Your task to perform on an android device: What's the weather going to be this weekend? Image 0: 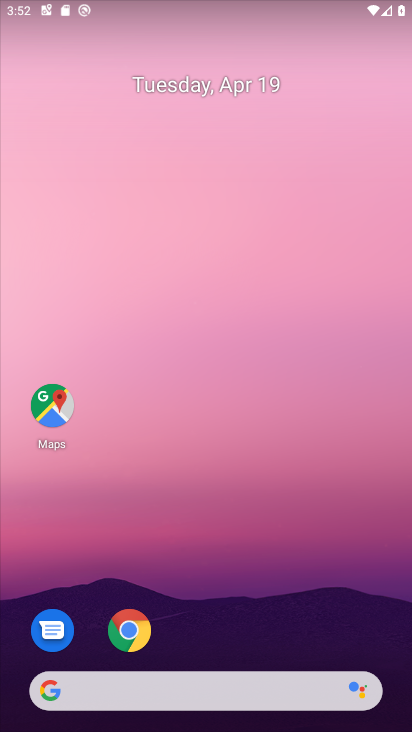
Step 0: click (125, 632)
Your task to perform on an android device: What's the weather going to be this weekend? Image 1: 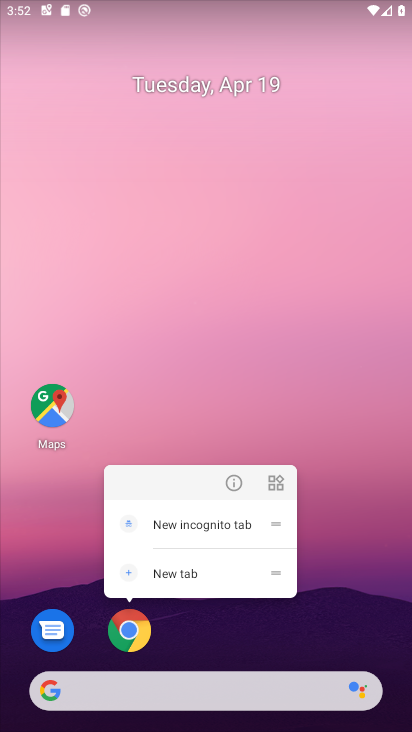
Step 1: click (126, 619)
Your task to perform on an android device: What's the weather going to be this weekend? Image 2: 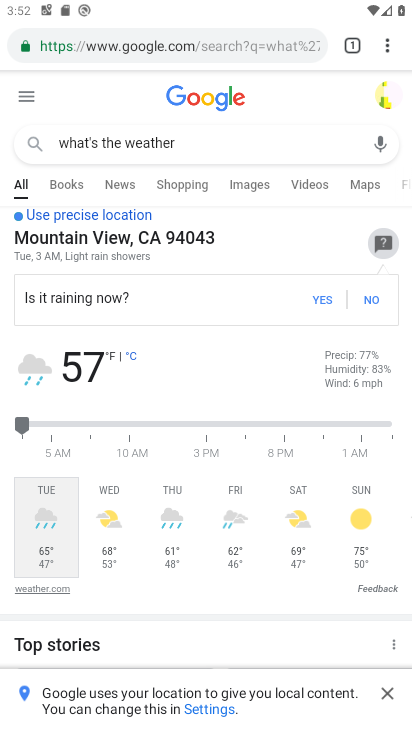
Step 2: click (165, 51)
Your task to perform on an android device: What's the weather going to be this weekend? Image 3: 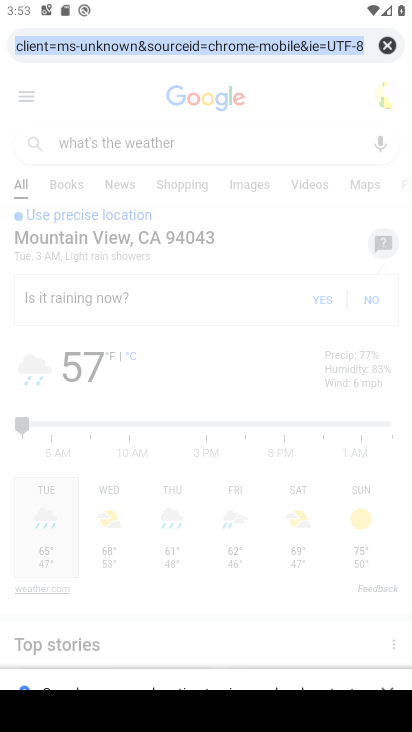
Step 3: type "what's the weather going to be this weekend"
Your task to perform on an android device: What's the weather going to be this weekend? Image 4: 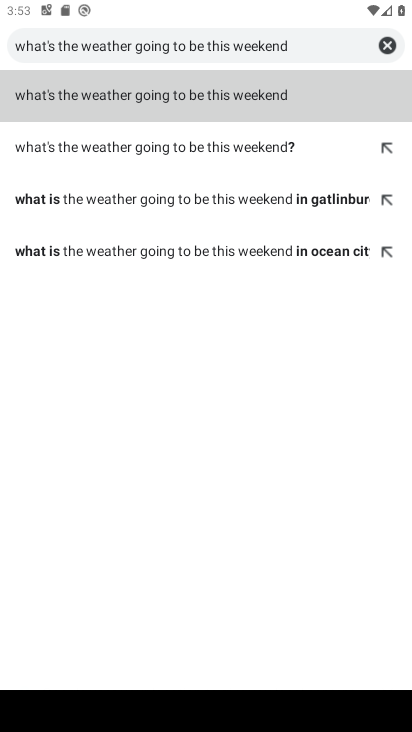
Step 4: click (218, 145)
Your task to perform on an android device: What's the weather going to be this weekend? Image 5: 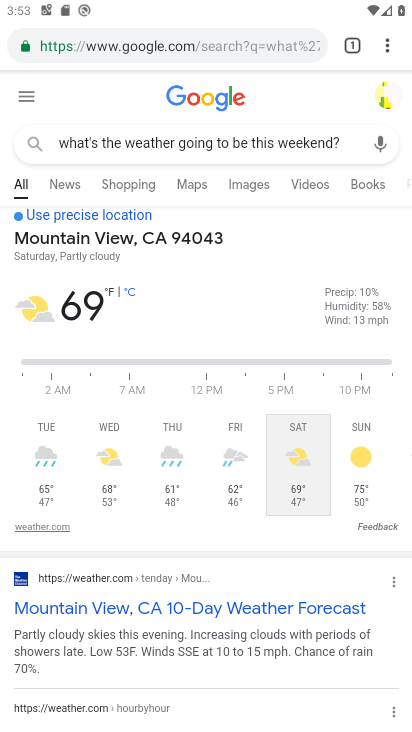
Step 5: task complete